Your task to perform on an android device: set the stopwatch Image 0: 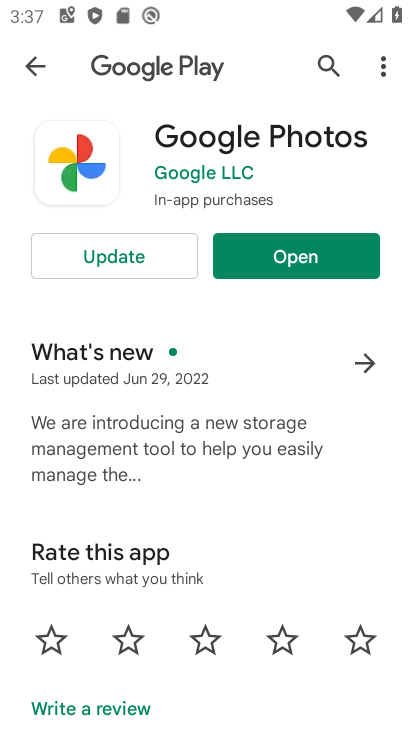
Step 0: press home button
Your task to perform on an android device: set the stopwatch Image 1: 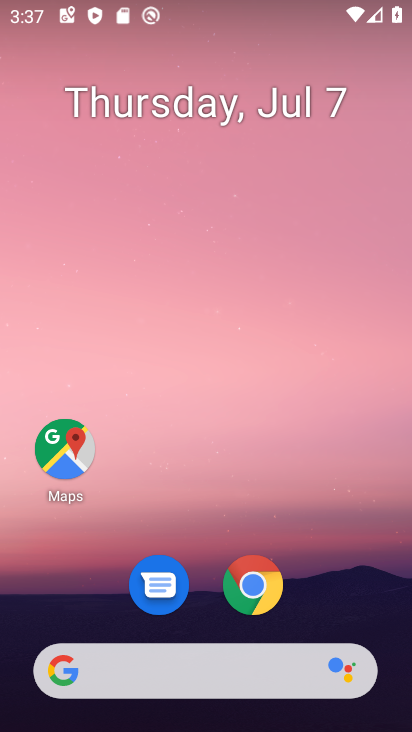
Step 1: drag from (205, 517) to (197, 7)
Your task to perform on an android device: set the stopwatch Image 2: 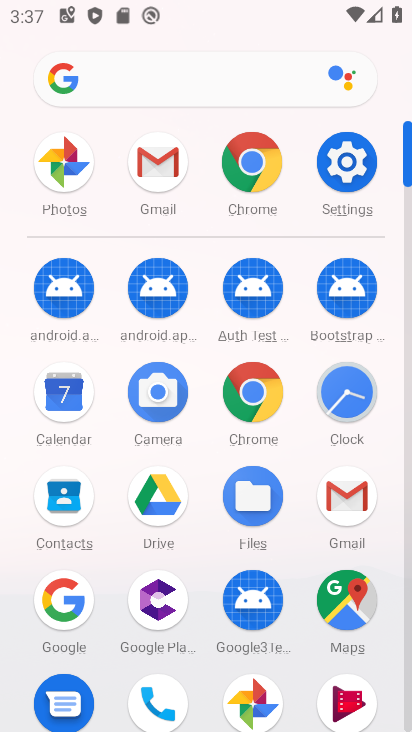
Step 2: click (342, 392)
Your task to perform on an android device: set the stopwatch Image 3: 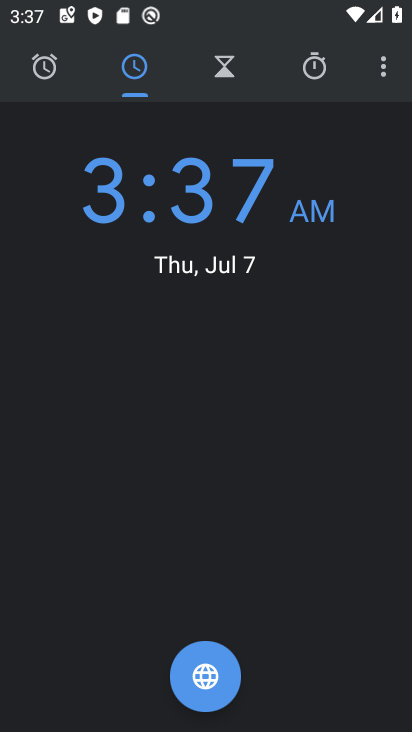
Step 3: click (314, 65)
Your task to perform on an android device: set the stopwatch Image 4: 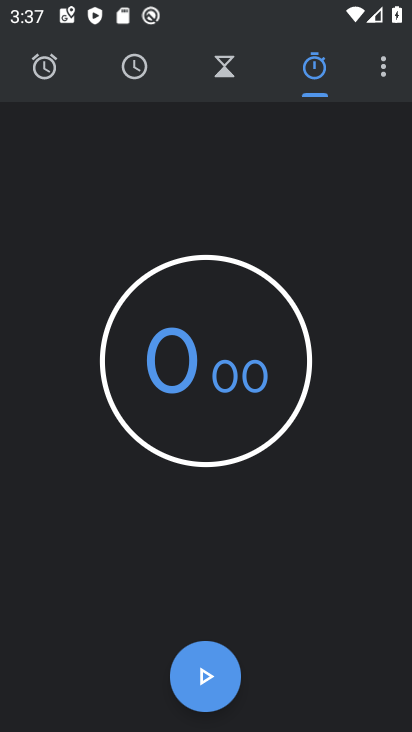
Step 4: task complete